Your task to perform on an android device: Open Youtube and go to "Your channel" Image 0: 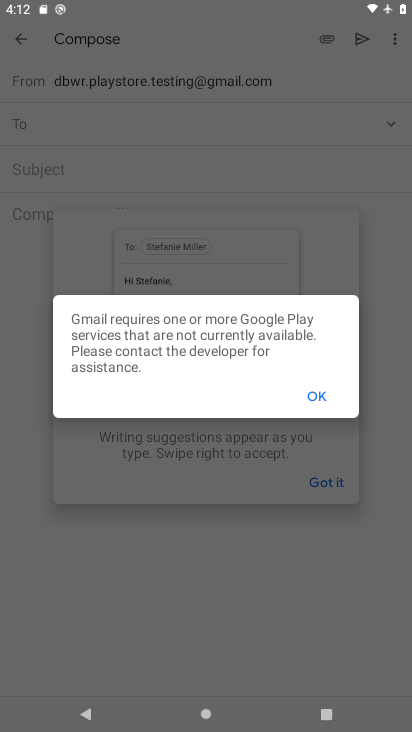
Step 0: press home button
Your task to perform on an android device: Open Youtube and go to "Your channel" Image 1: 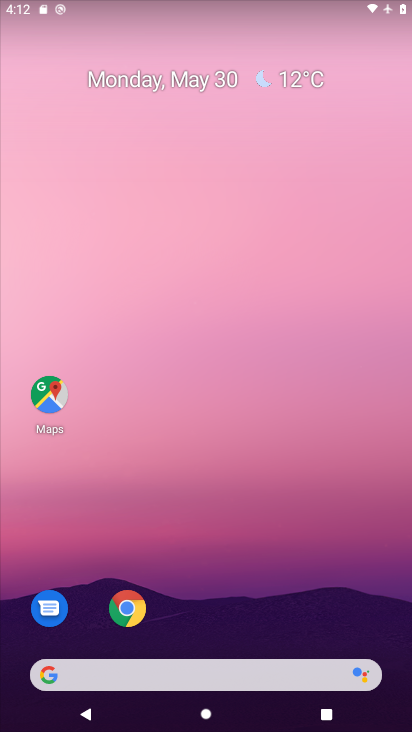
Step 1: drag from (269, 318) to (135, 52)
Your task to perform on an android device: Open Youtube and go to "Your channel" Image 2: 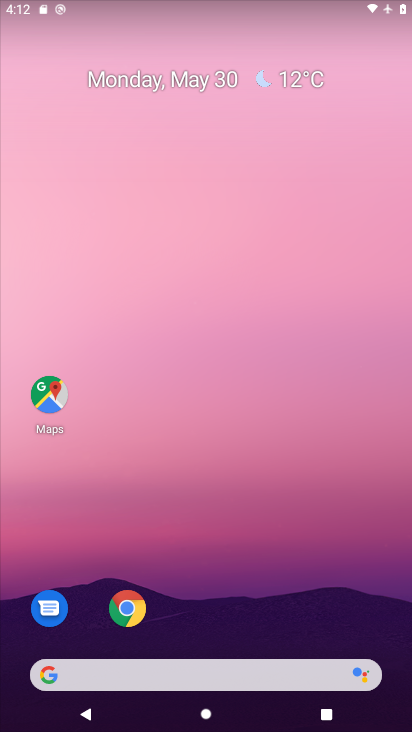
Step 2: drag from (267, 578) to (111, 20)
Your task to perform on an android device: Open Youtube and go to "Your channel" Image 3: 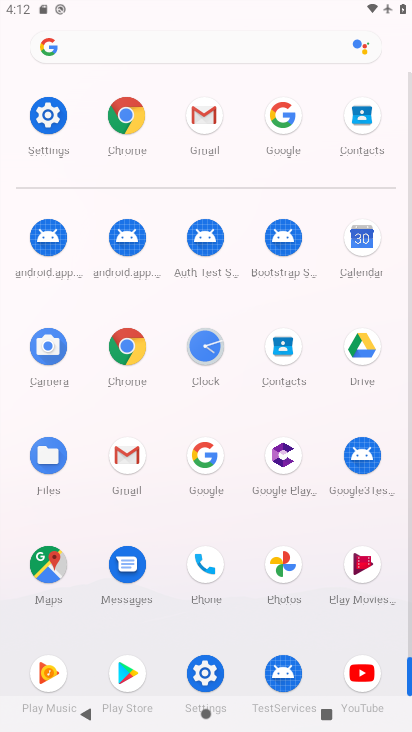
Step 3: click (364, 680)
Your task to perform on an android device: Open Youtube and go to "Your channel" Image 4: 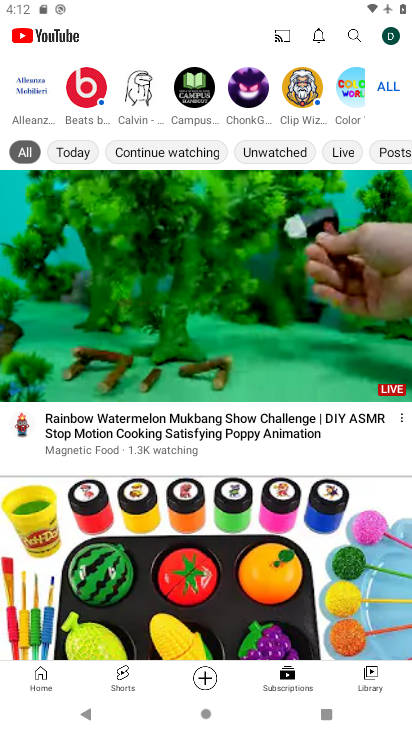
Step 4: click (392, 36)
Your task to perform on an android device: Open Youtube and go to "Your channel" Image 5: 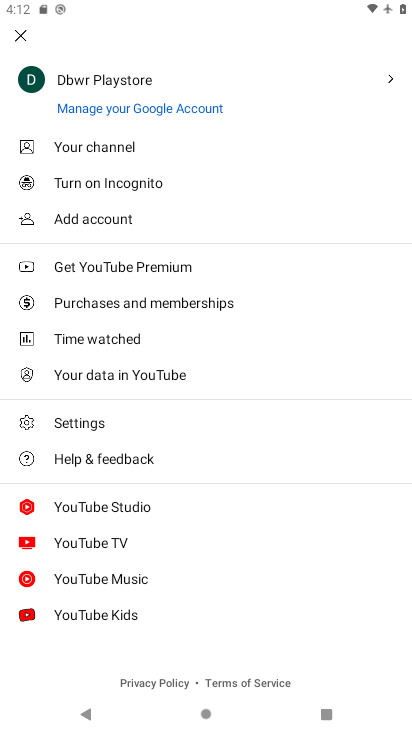
Step 5: click (124, 147)
Your task to perform on an android device: Open Youtube and go to "Your channel" Image 6: 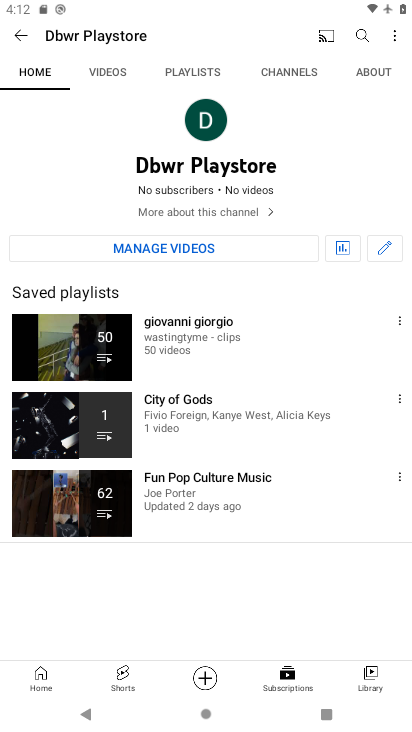
Step 6: task complete